Your task to perform on an android device: What's the weather going to be this weekend? Image 0: 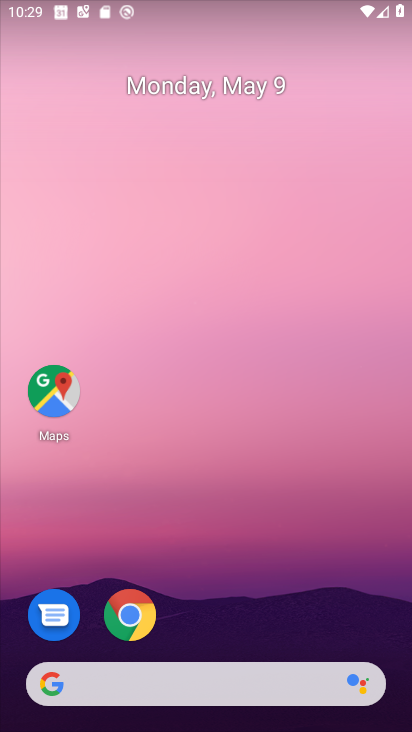
Step 0: drag from (209, 700) to (309, 526)
Your task to perform on an android device: What's the weather going to be this weekend? Image 1: 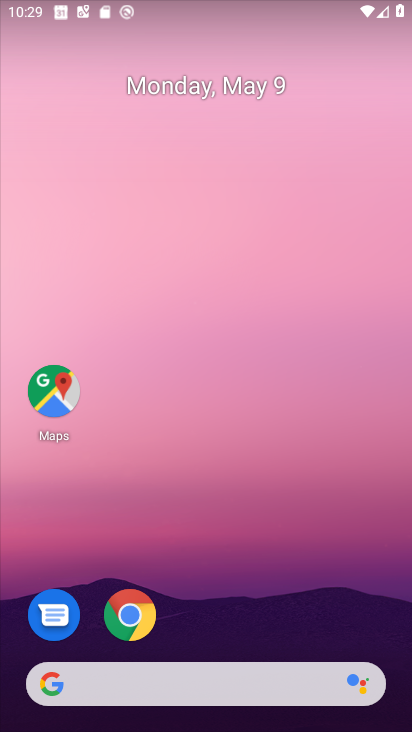
Step 1: drag from (183, 710) to (395, 107)
Your task to perform on an android device: What's the weather going to be this weekend? Image 2: 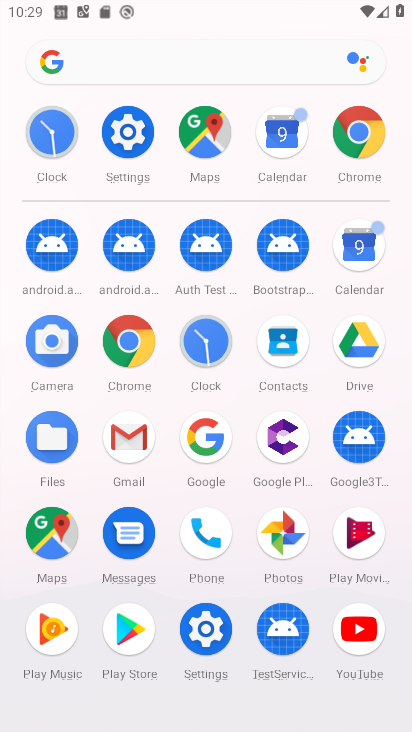
Step 2: click (144, 72)
Your task to perform on an android device: What's the weather going to be this weekend? Image 3: 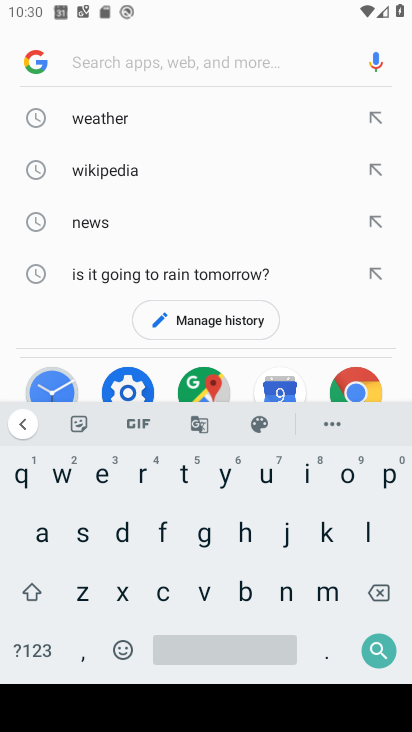
Step 3: click (123, 140)
Your task to perform on an android device: What's the weather going to be this weekend? Image 4: 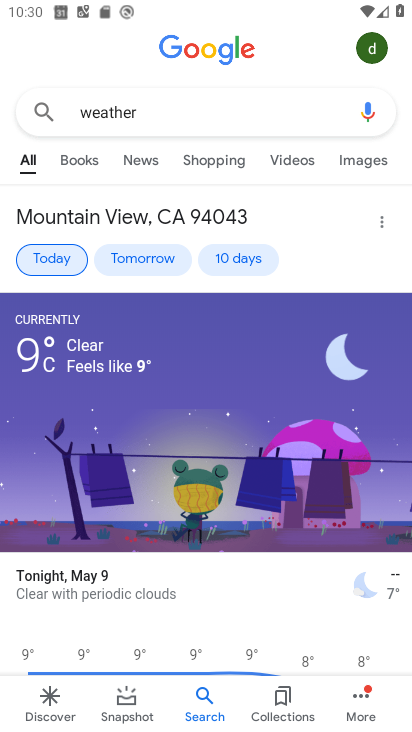
Step 4: click (231, 262)
Your task to perform on an android device: What's the weather going to be this weekend? Image 5: 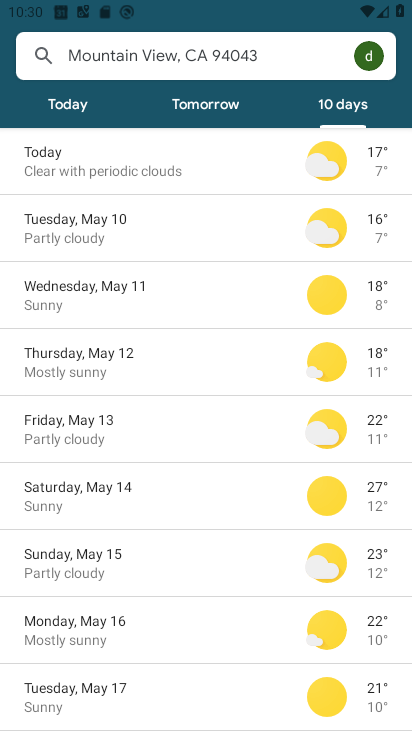
Step 5: task complete